Your task to perform on an android device: set default search engine in the chrome app Image 0: 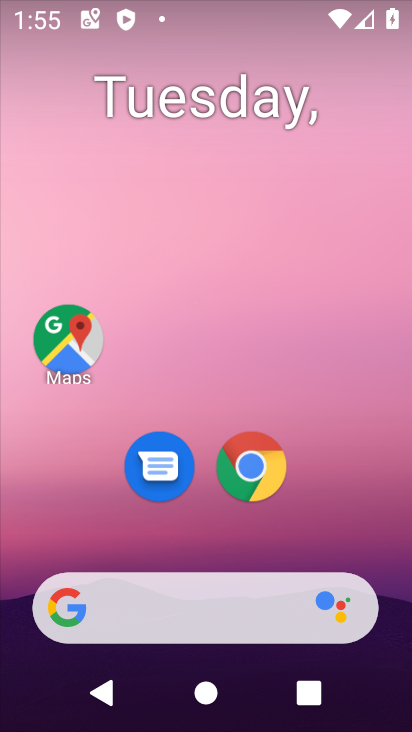
Step 0: click (263, 491)
Your task to perform on an android device: set default search engine in the chrome app Image 1: 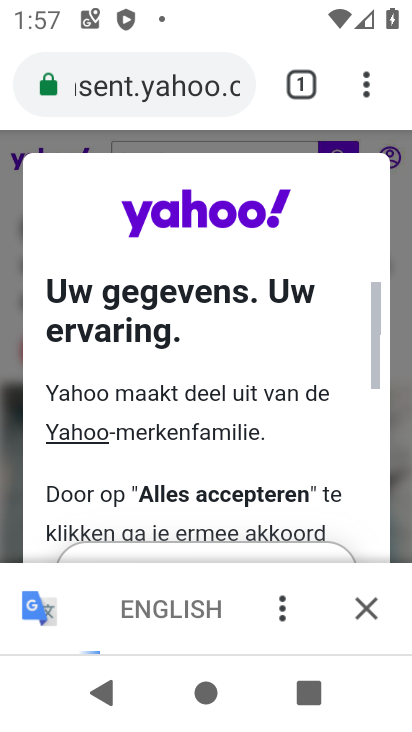
Step 1: task complete